Your task to perform on an android device: uninstall "YouTube Kids" Image 0: 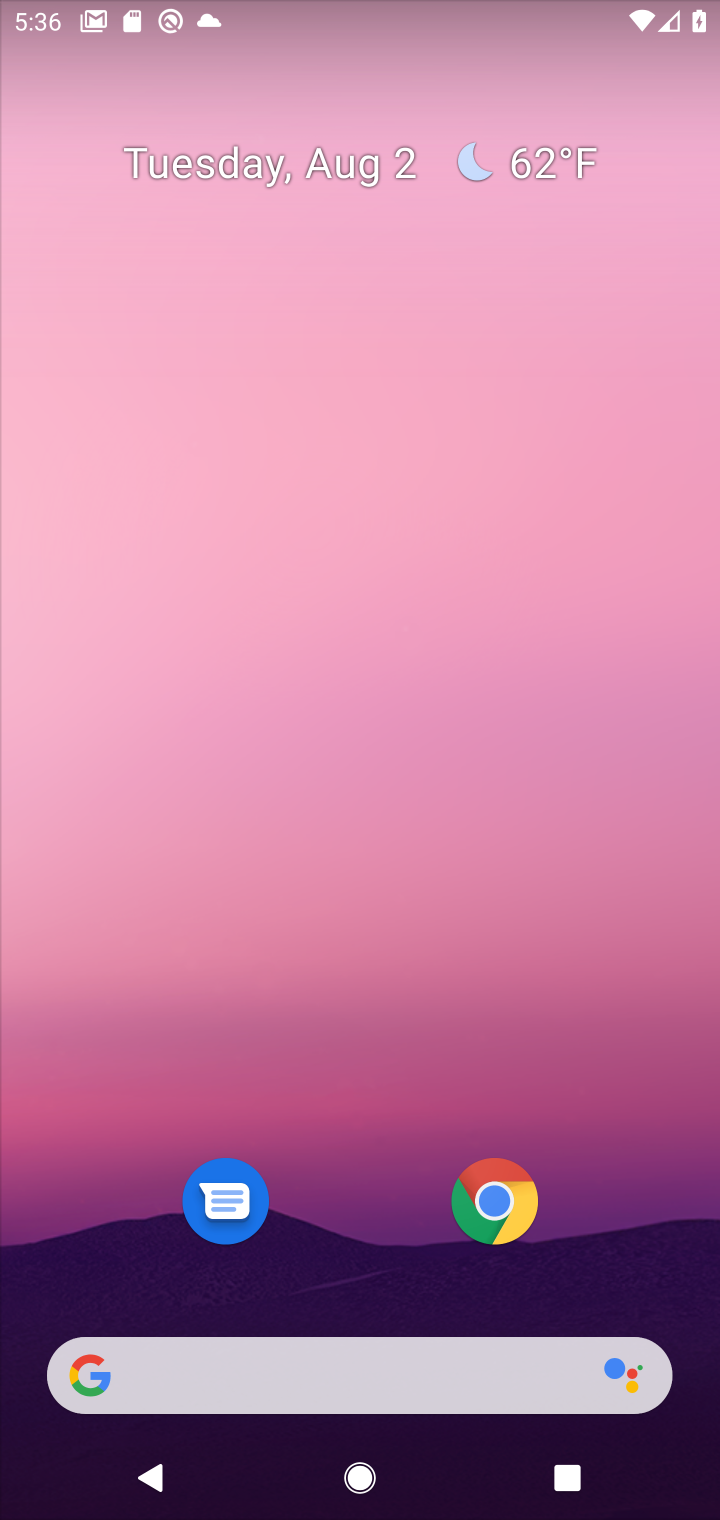
Step 0: drag from (356, 592) to (408, 206)
Your task to perform on an android device: uninstall "YouTube Kids" Image 1: 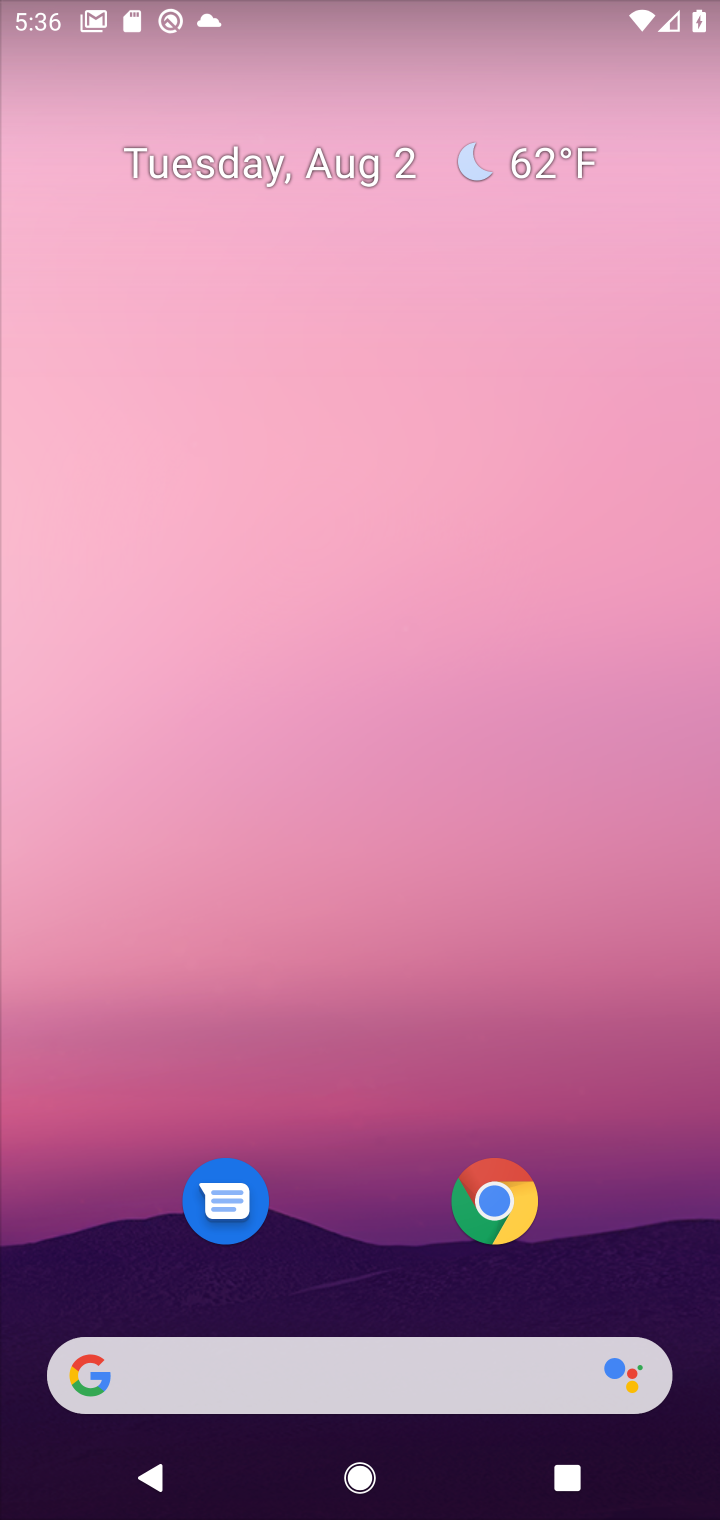
Step 1: drag from (355, 1021) to (373, 101)
Your task to perform on an android device: uninstall "YouTube Kids" Image 2: 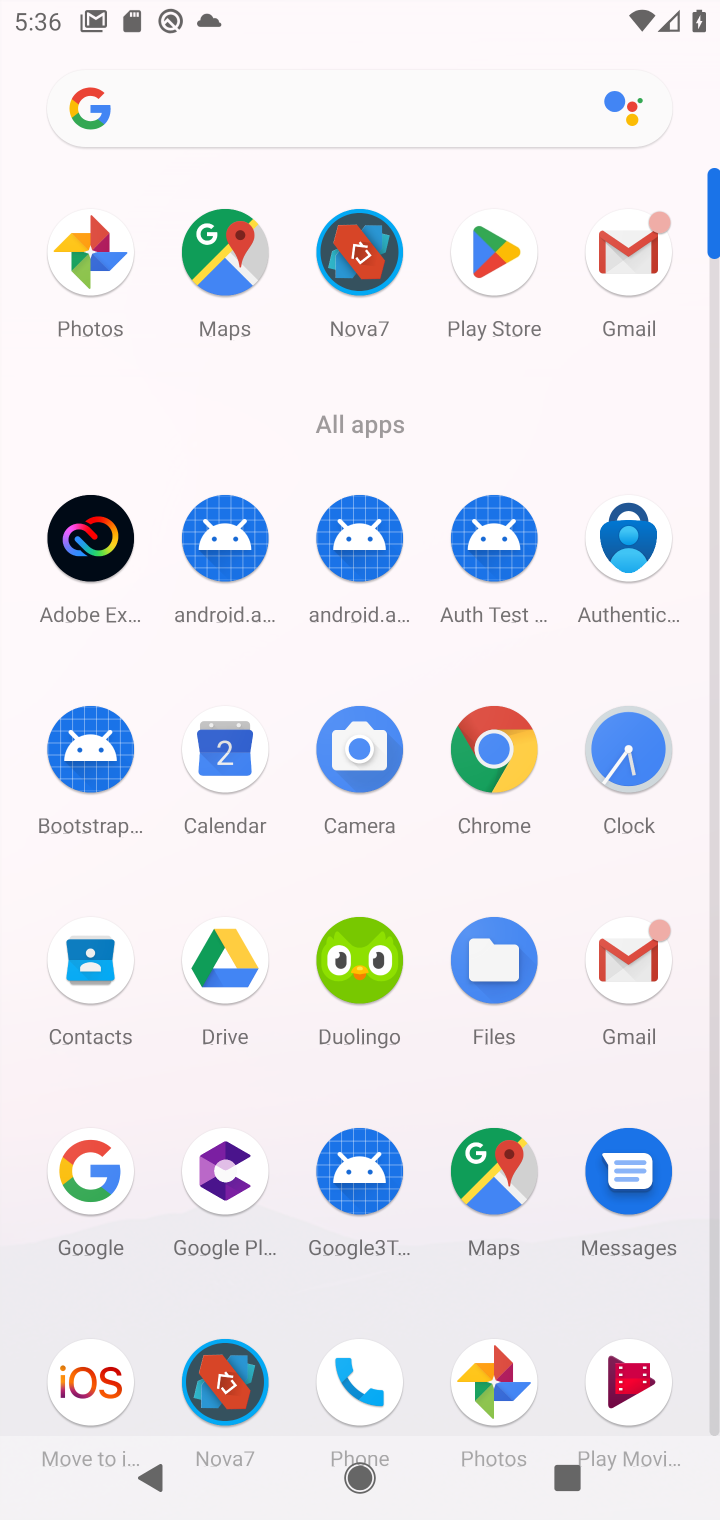
Step 2: click (469, 257)
Your task to perform on an android device: uninstall "YouTube Kids" Image 3: 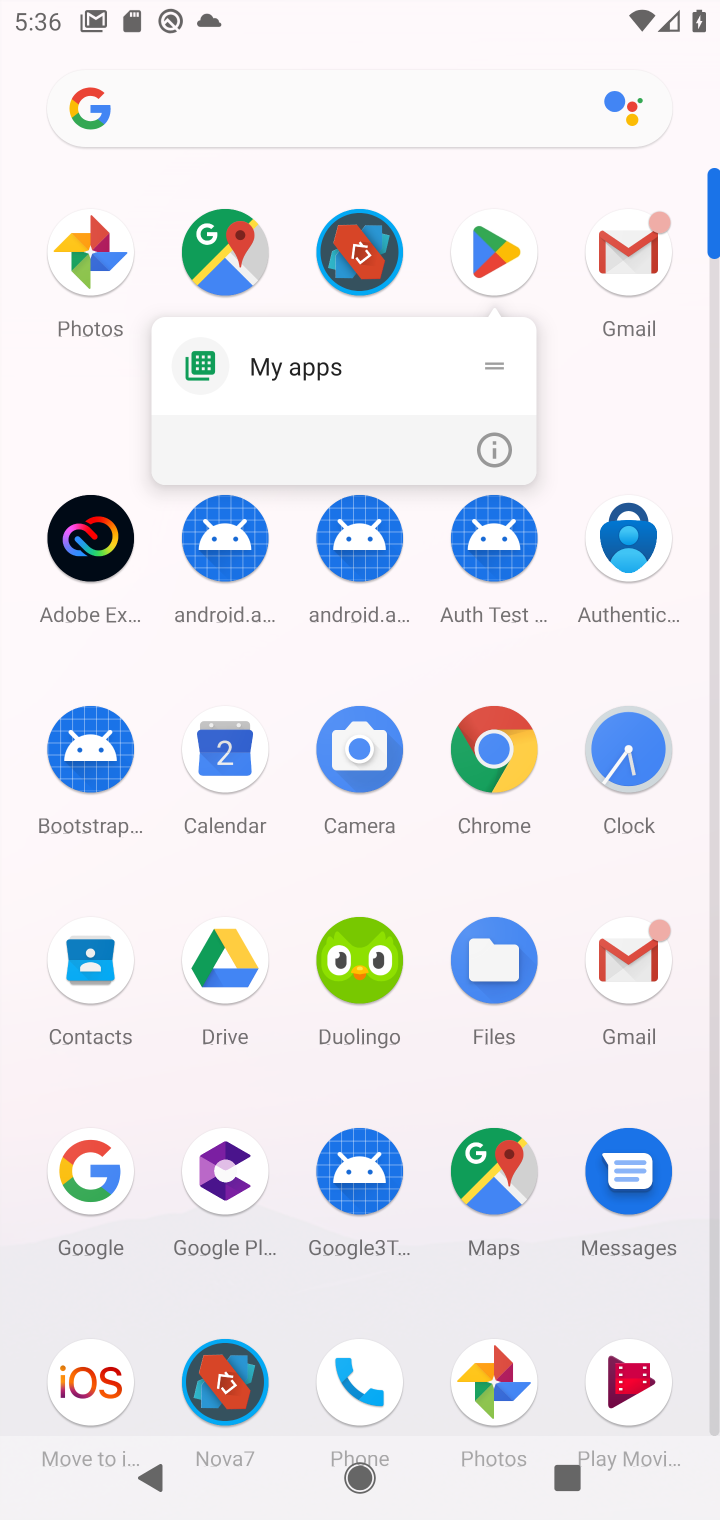
Step 3: click (489, 449)
Your task to perform on an android device: uninstall "YouTube Kids" Image 4: 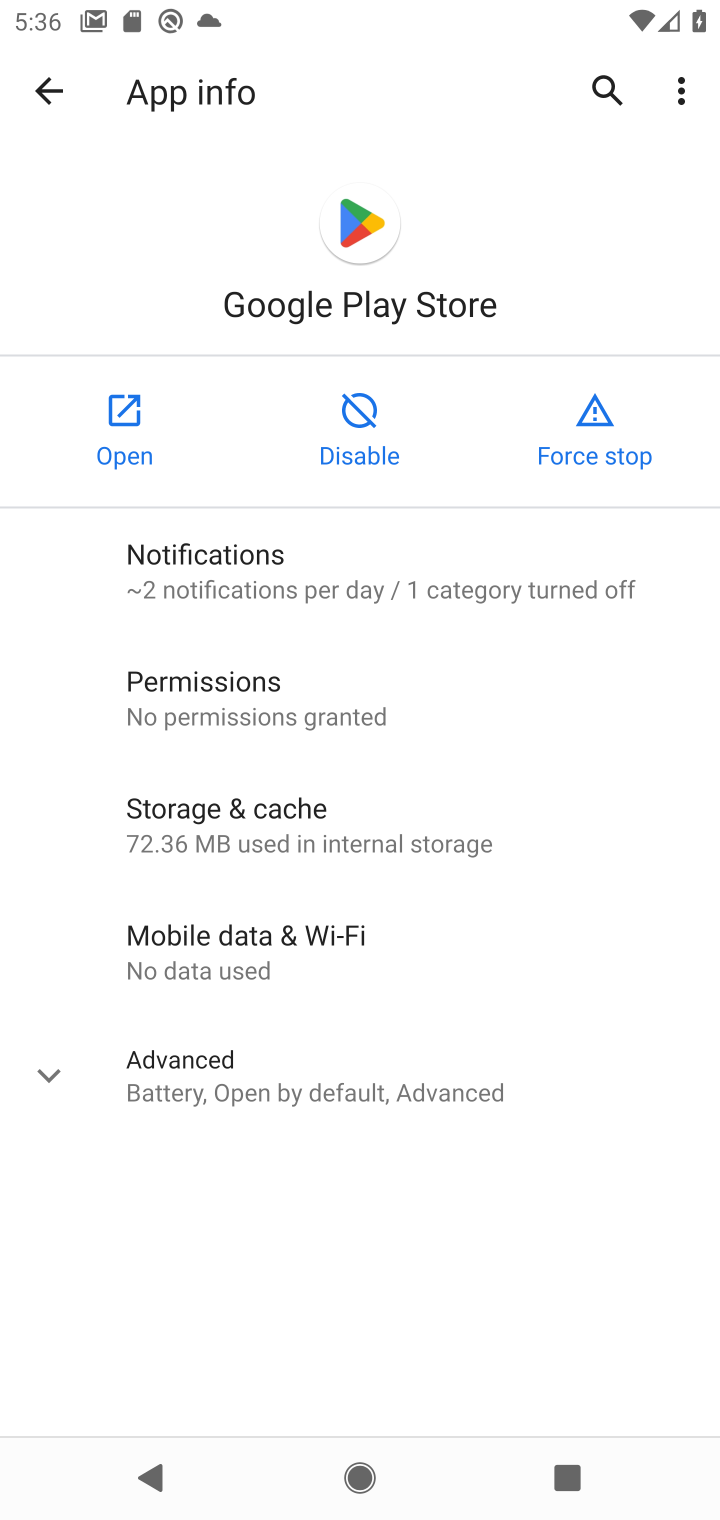
Step 4: click (114, 417)
Your task to perform on an android device: uninstall "YouTube Kids" Image 5: 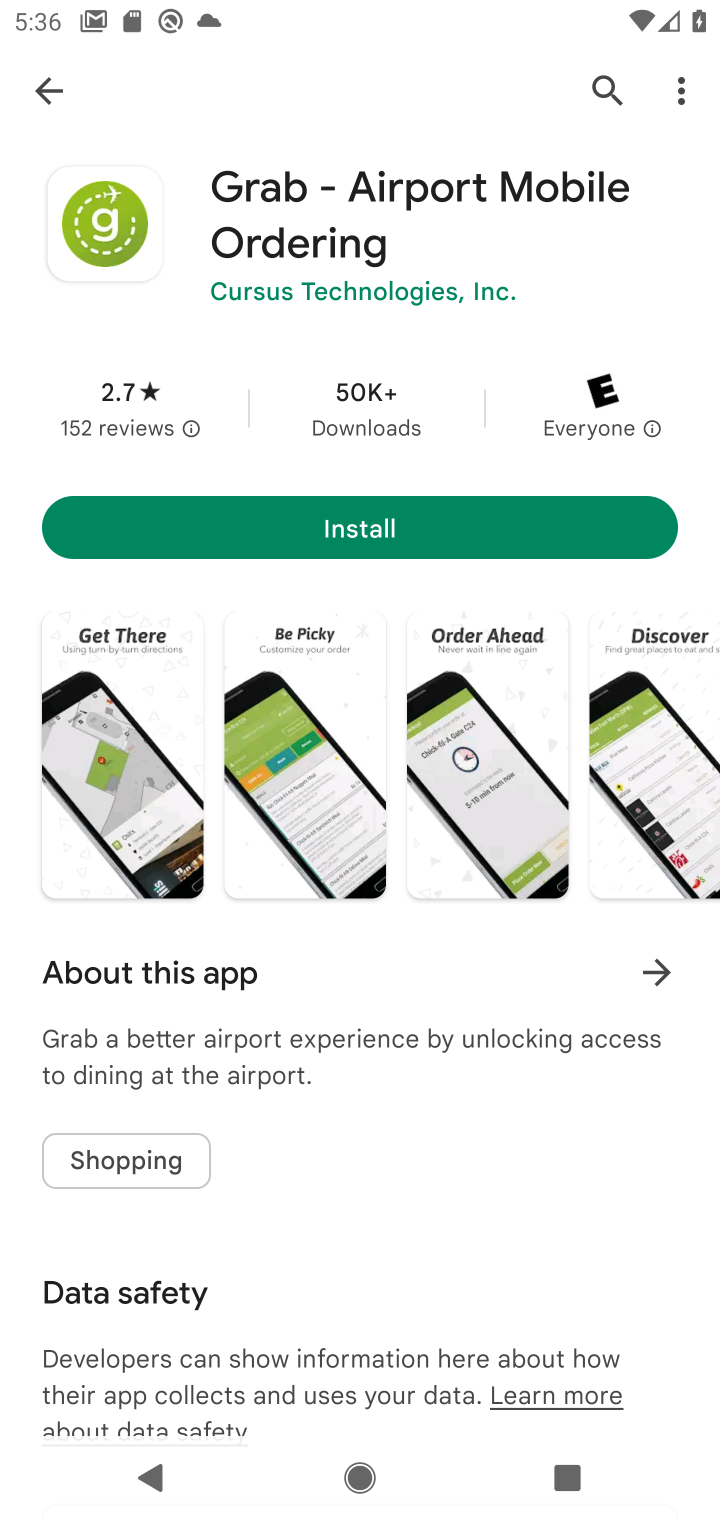
Step 5: click (608, 93)
Your task to perform on an android device: uninstall "YouTube Kids" Image 6: 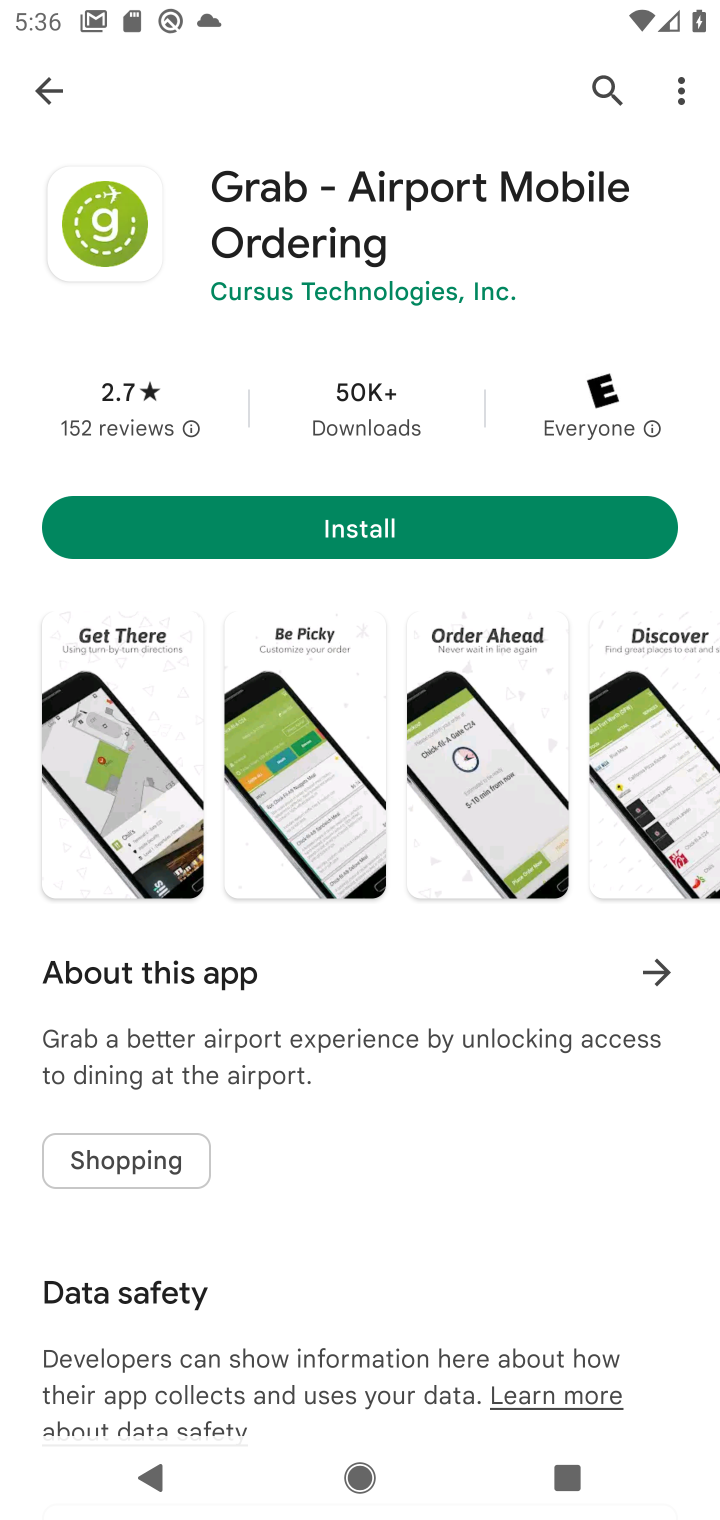
Step 6: click (618, 93)
Your task to perform on an android device: uninstall "YouTube Kids" Image 7: 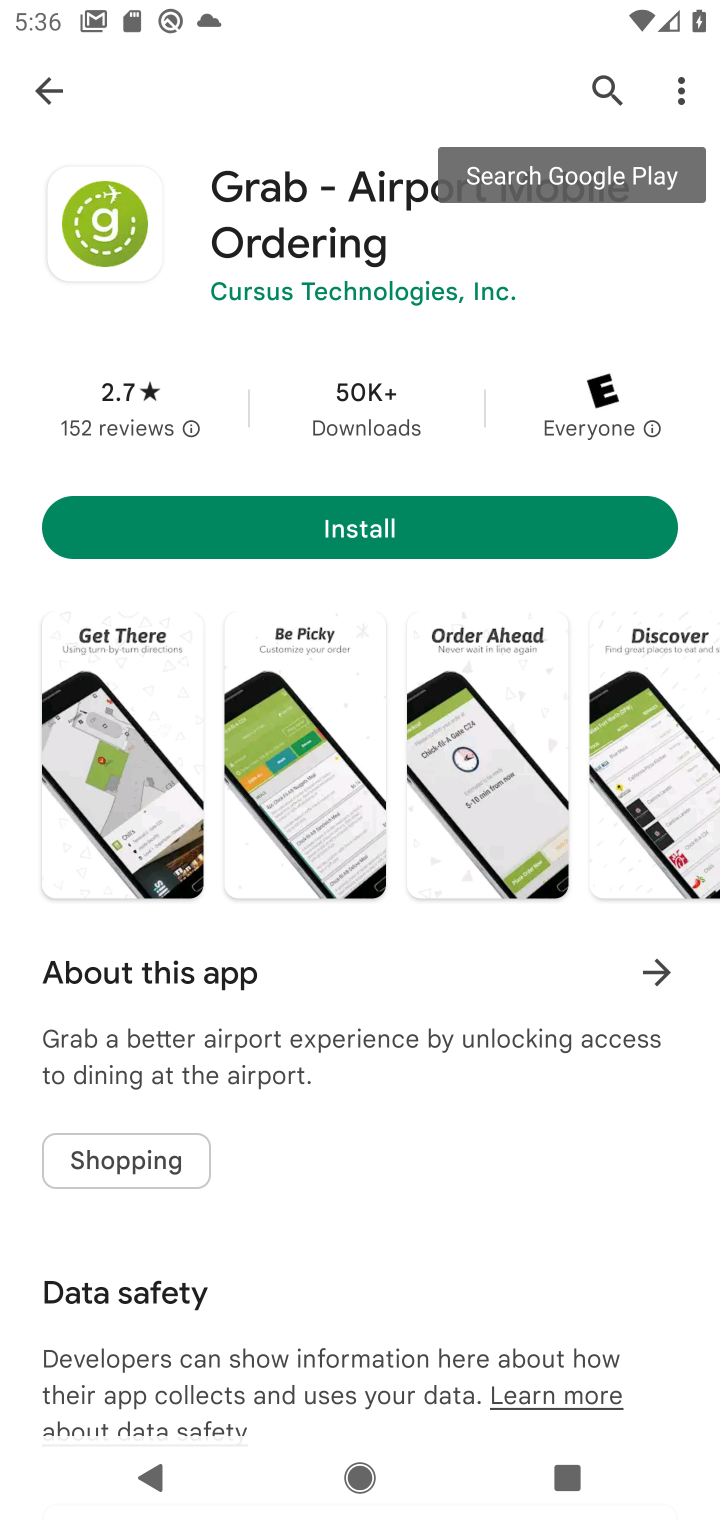
Step 7: click (610, 86)
Your task to perform on an android device: uninstall "YouTube Kids" Image 8: 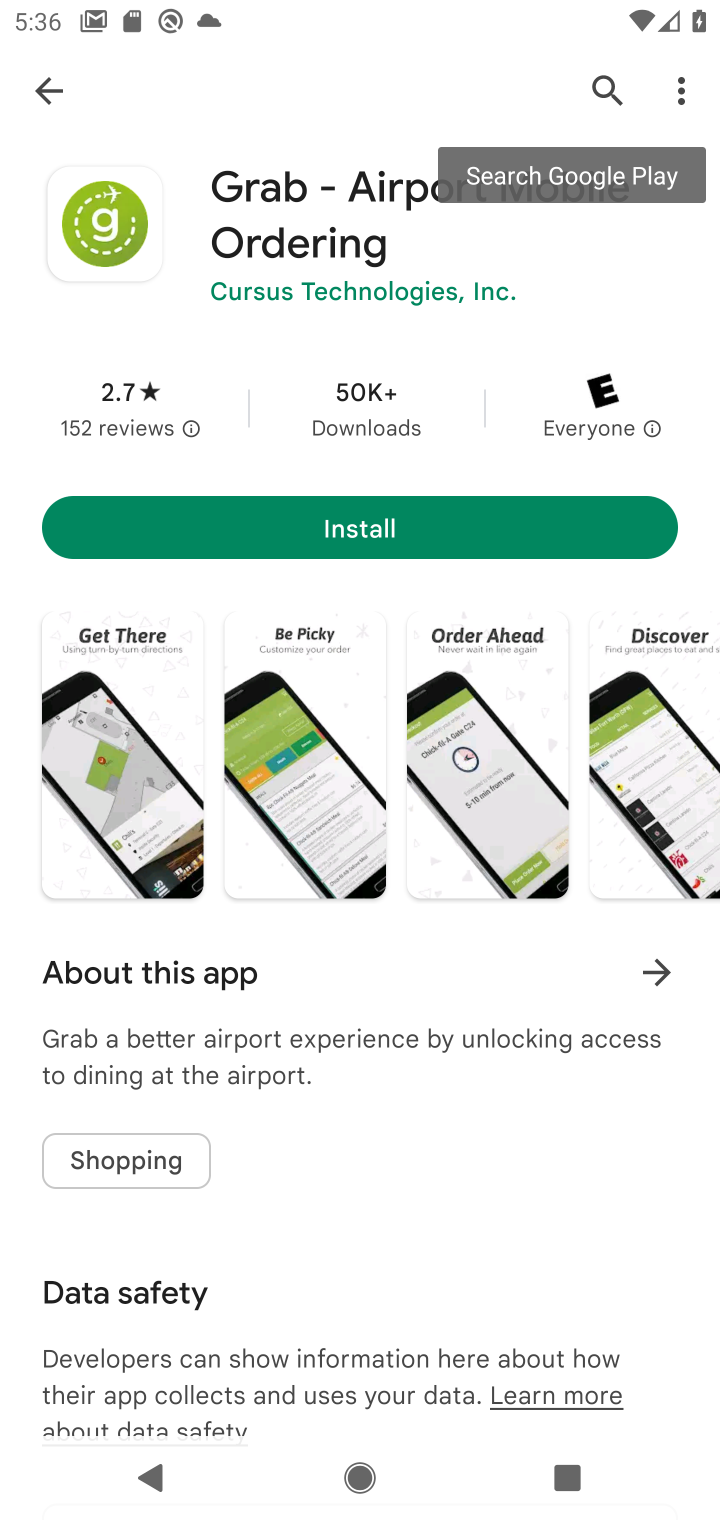
Step 8: click (606, 86)
Your task to perform on an android device: uninstall "YouTube Kids" Image 9: 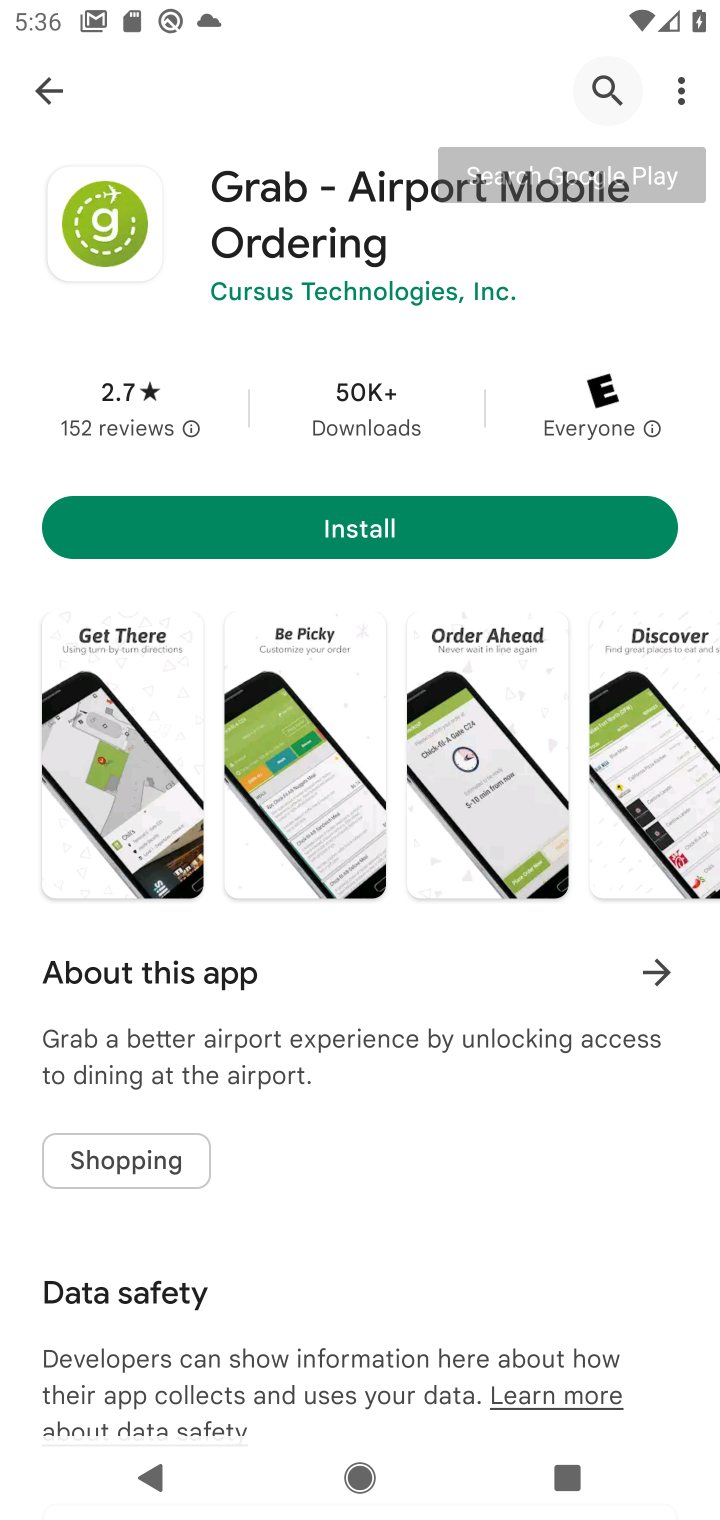
Step 9: click (606, 86)
Your task to perform on an android device: uninstall "YouTube Kids" Image 10: 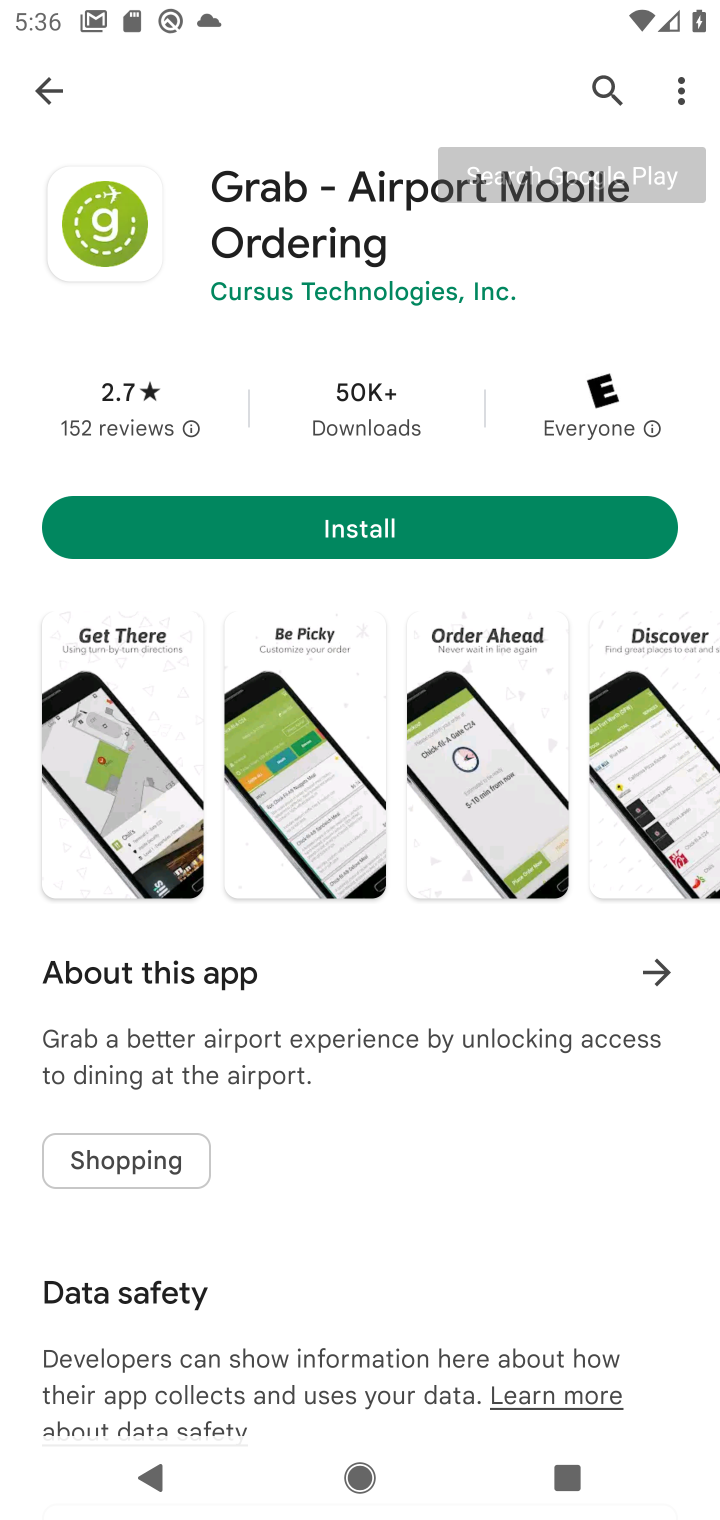
Step 10: click (606, 86)
Your task to perform on an android device: uninstall "YouTube Kids" Image 11: 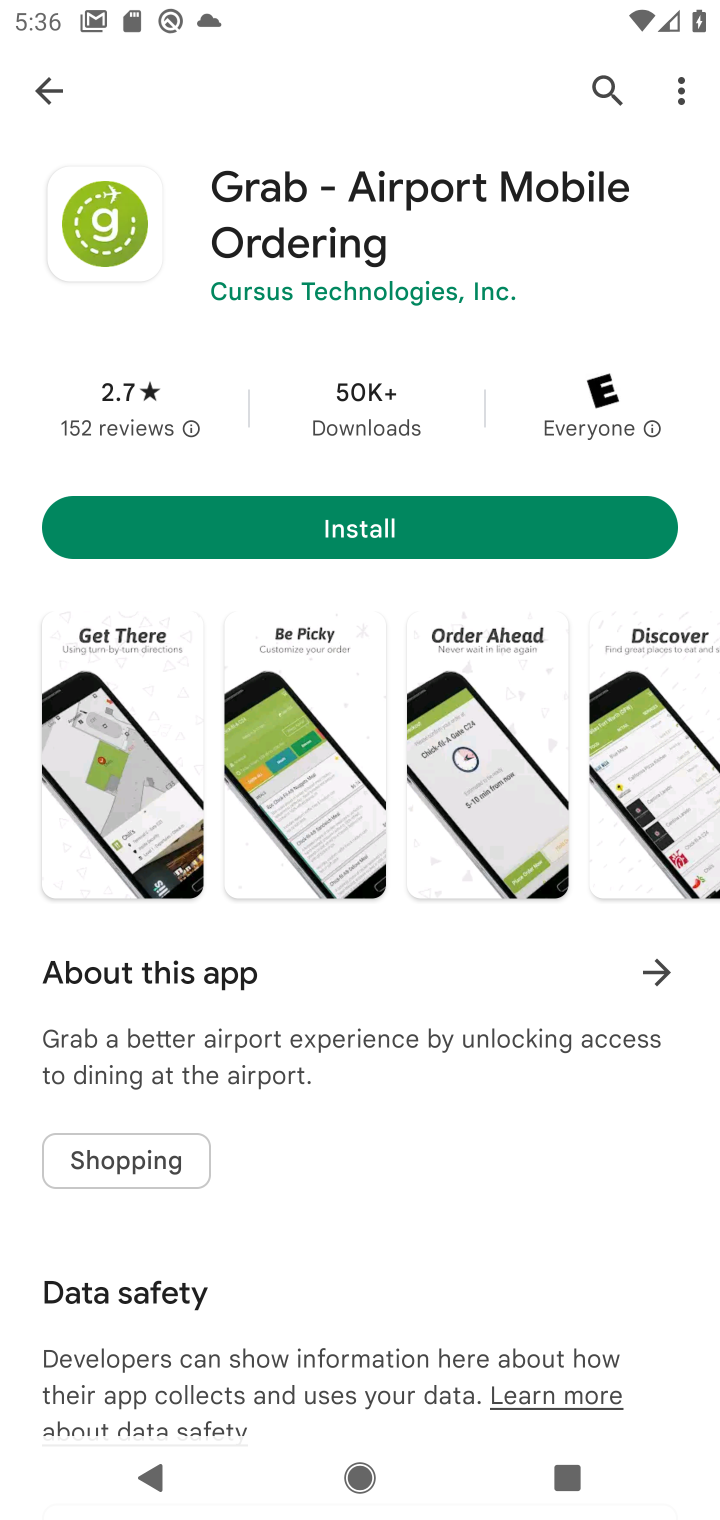
Step 11: press back button
Your task to perform on an android device: uninstall "YouTube Kids" Image 12: 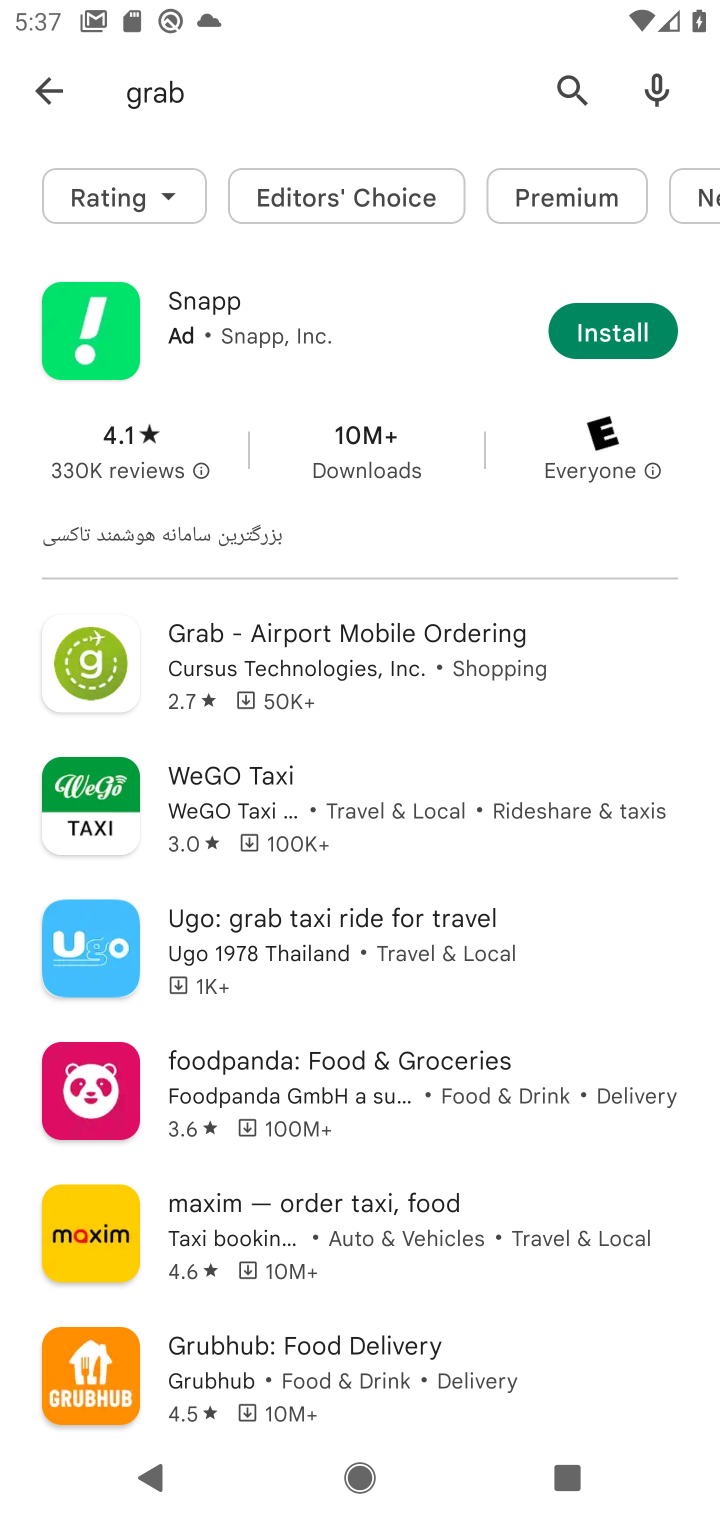
Step 12: click (560, 111)
Your task to perform on an android device: uninstall "YouTube Kids" Image 13: 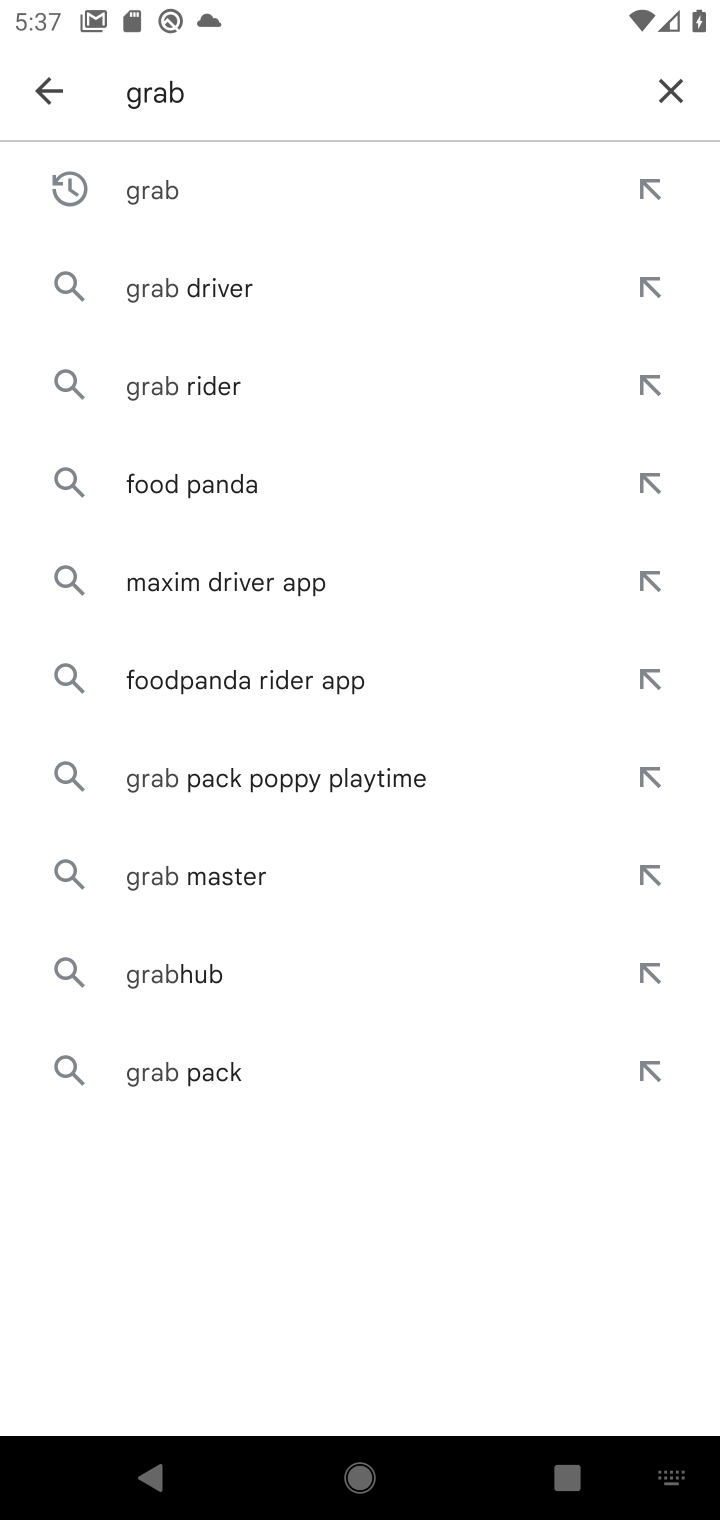
Step 13: click (661, 93)
Your task to perform on an android device: uninstall "YouTube Kids" Image 14: 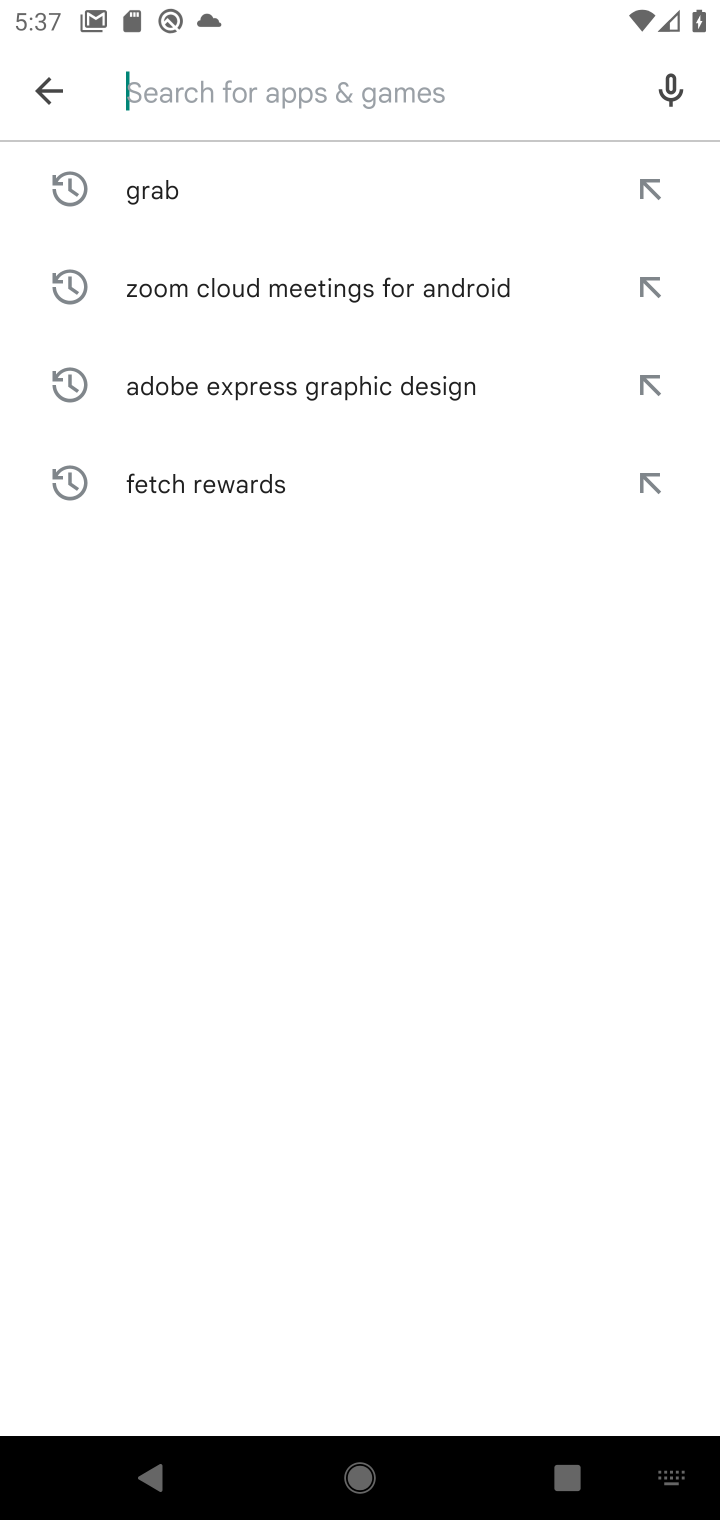
Step 14: type "YouTube Kids"
Your task to perform on an android device: uninstall "YouTube Kids" Image 15: 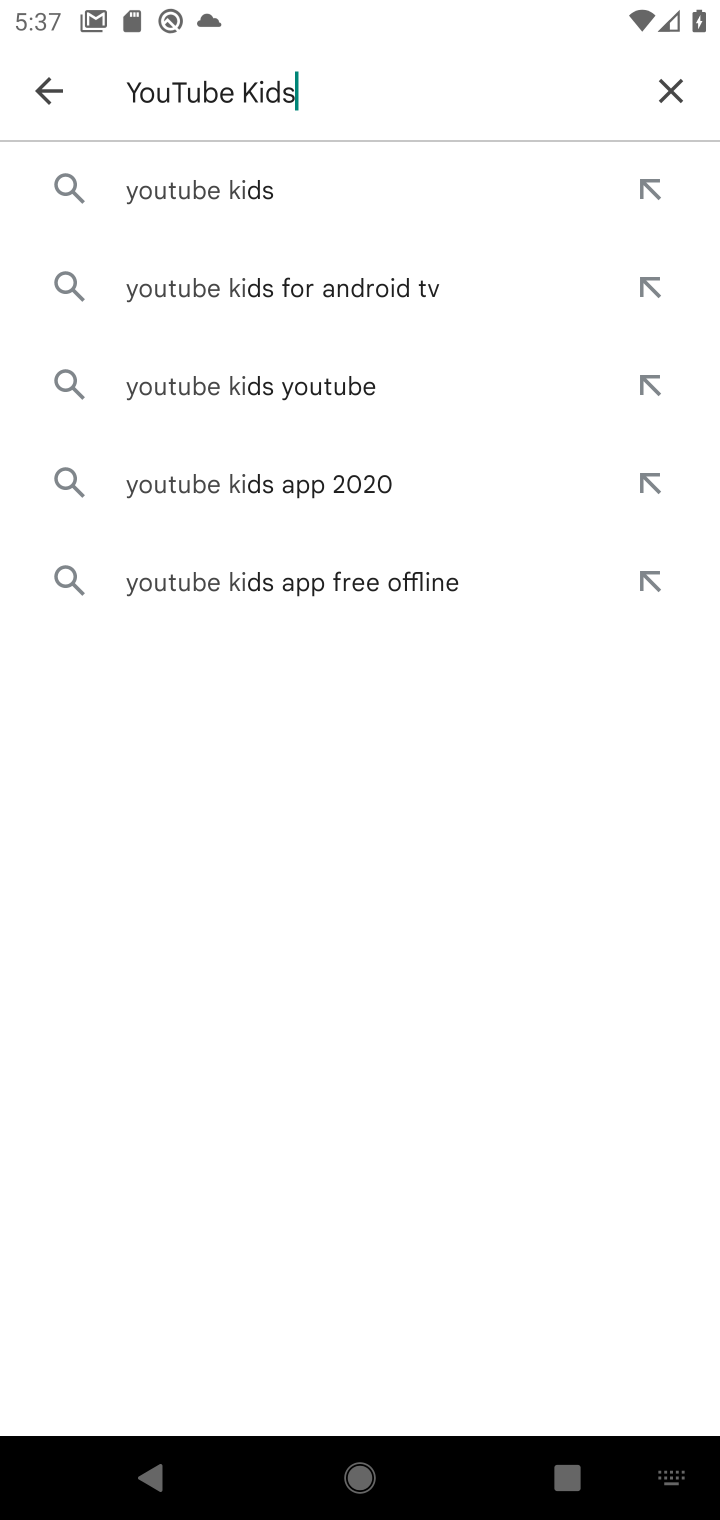
Step 15: type ""
Your task to perform on an android device: uninstall "YouTube Kids" Image 16: 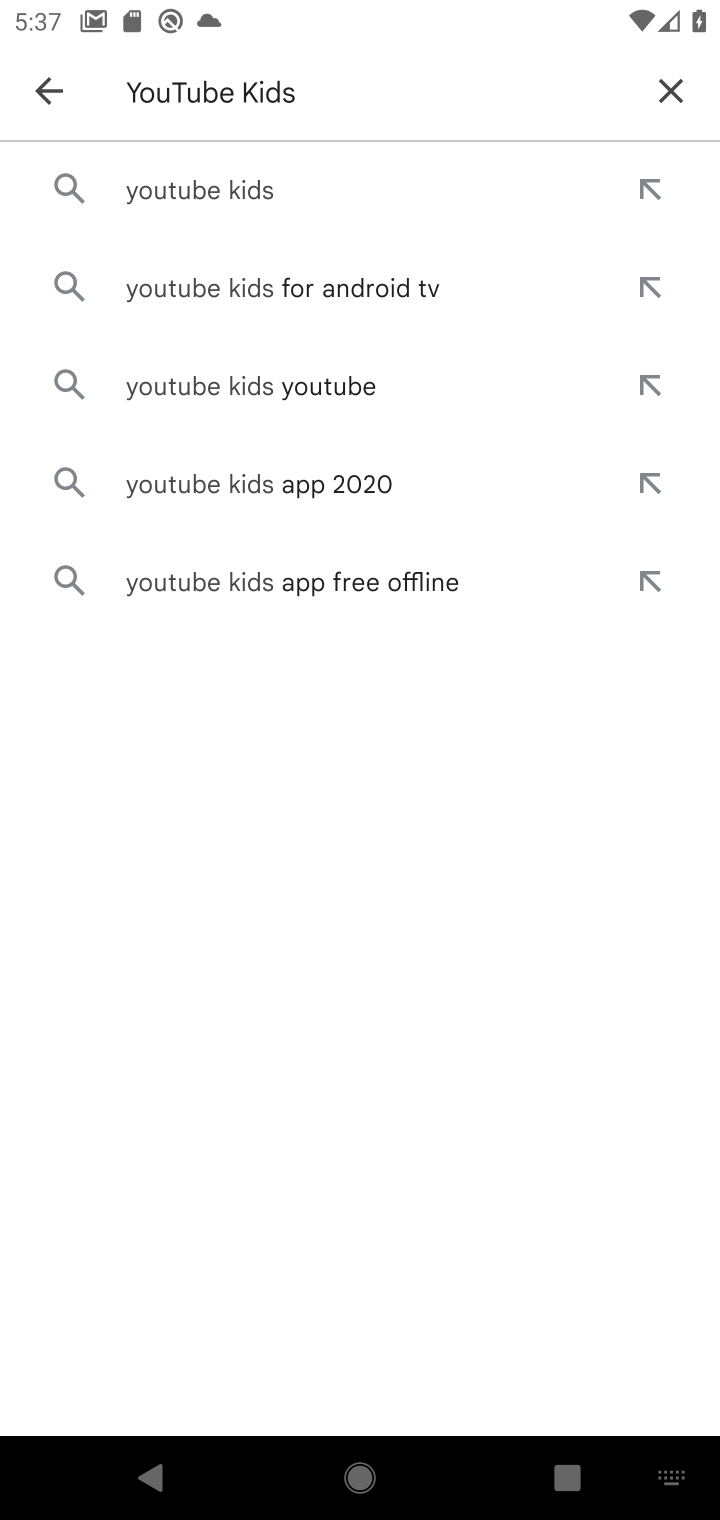
Step 16: click (185, 180)
Your task to perform on an android device: uninstall "YouTube Kids" Image 17: 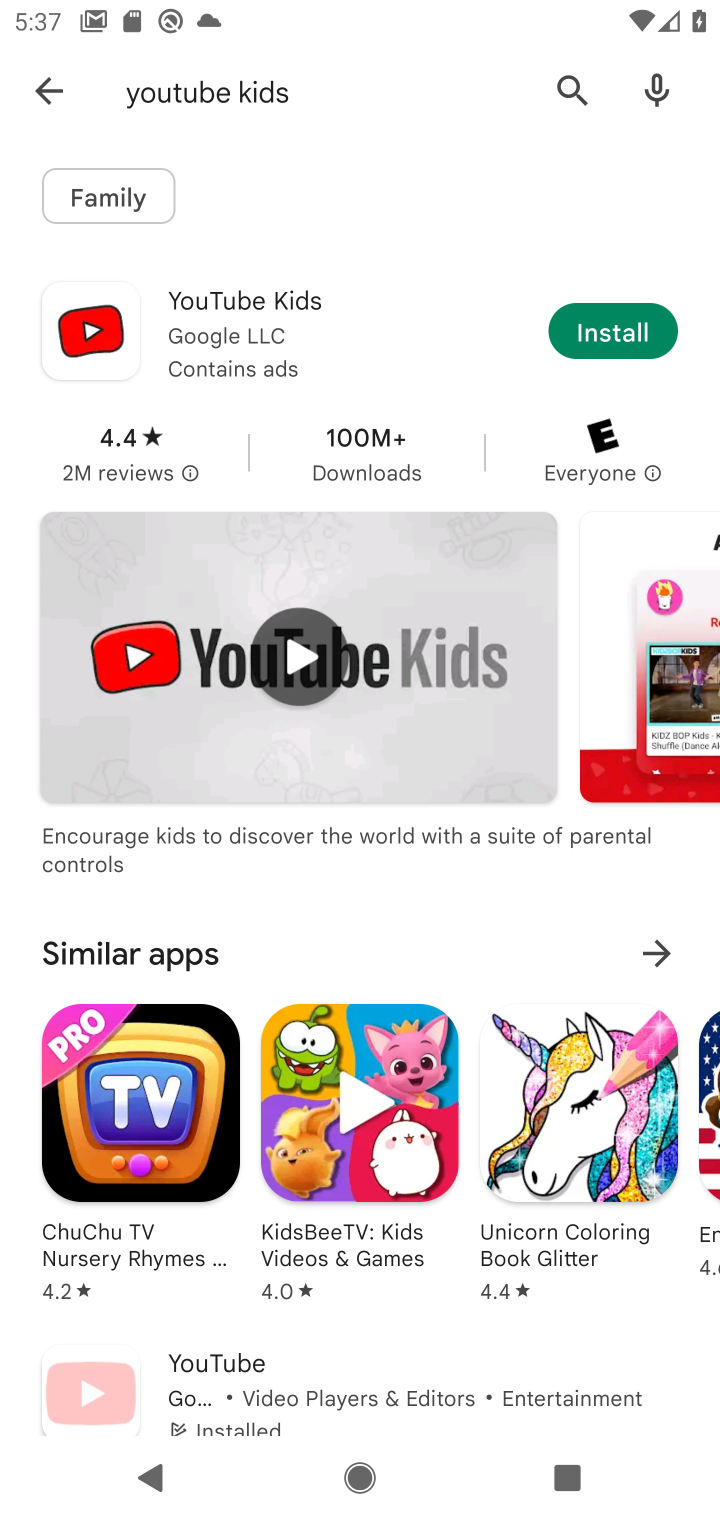
Step 17: drag from (377, 351) to (643, 1082)
Your task to perform on an android device: uninstall "YouTube Kids" Image 18: 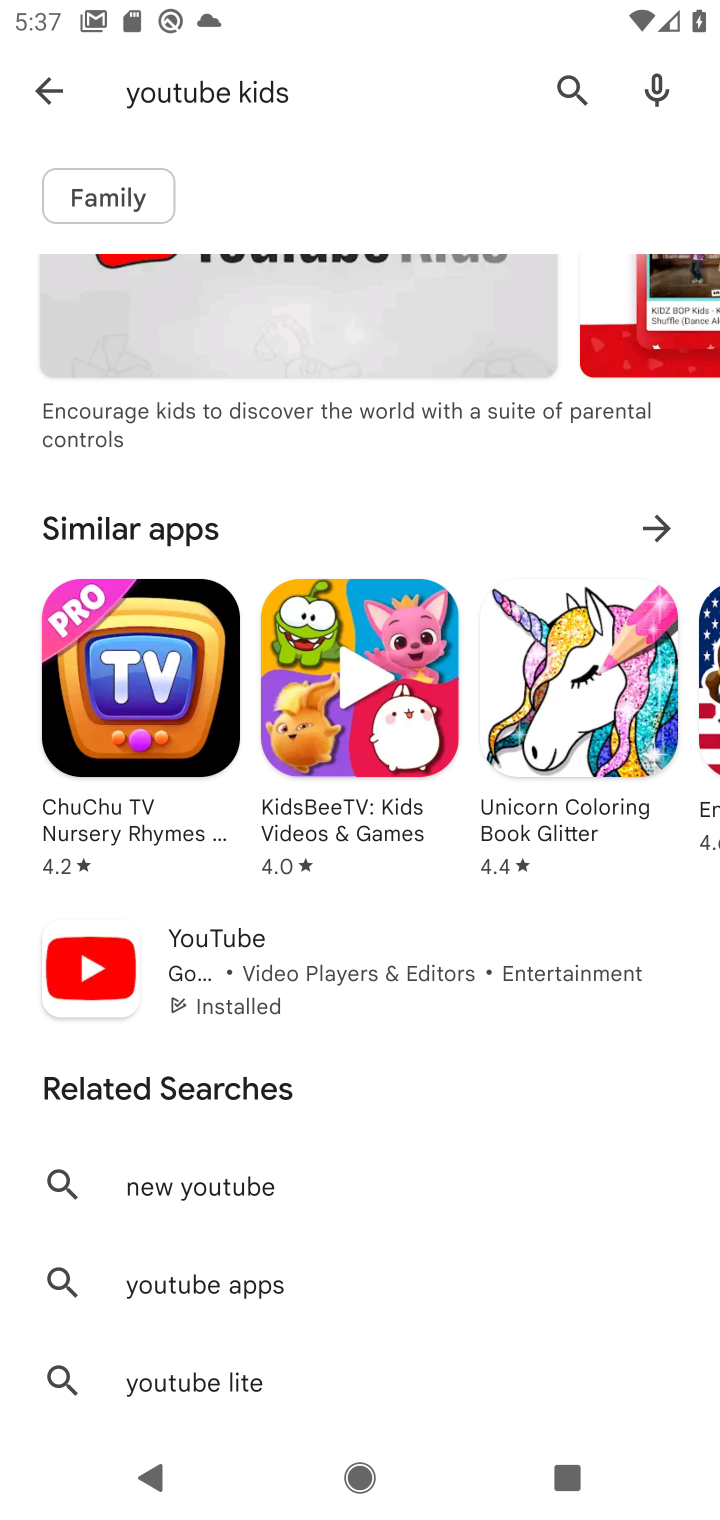
Step 18: drag from (319, 853) to (601, 1495)
Your task to perform on an android device: uninstall "YouTube Kids" Image 19: 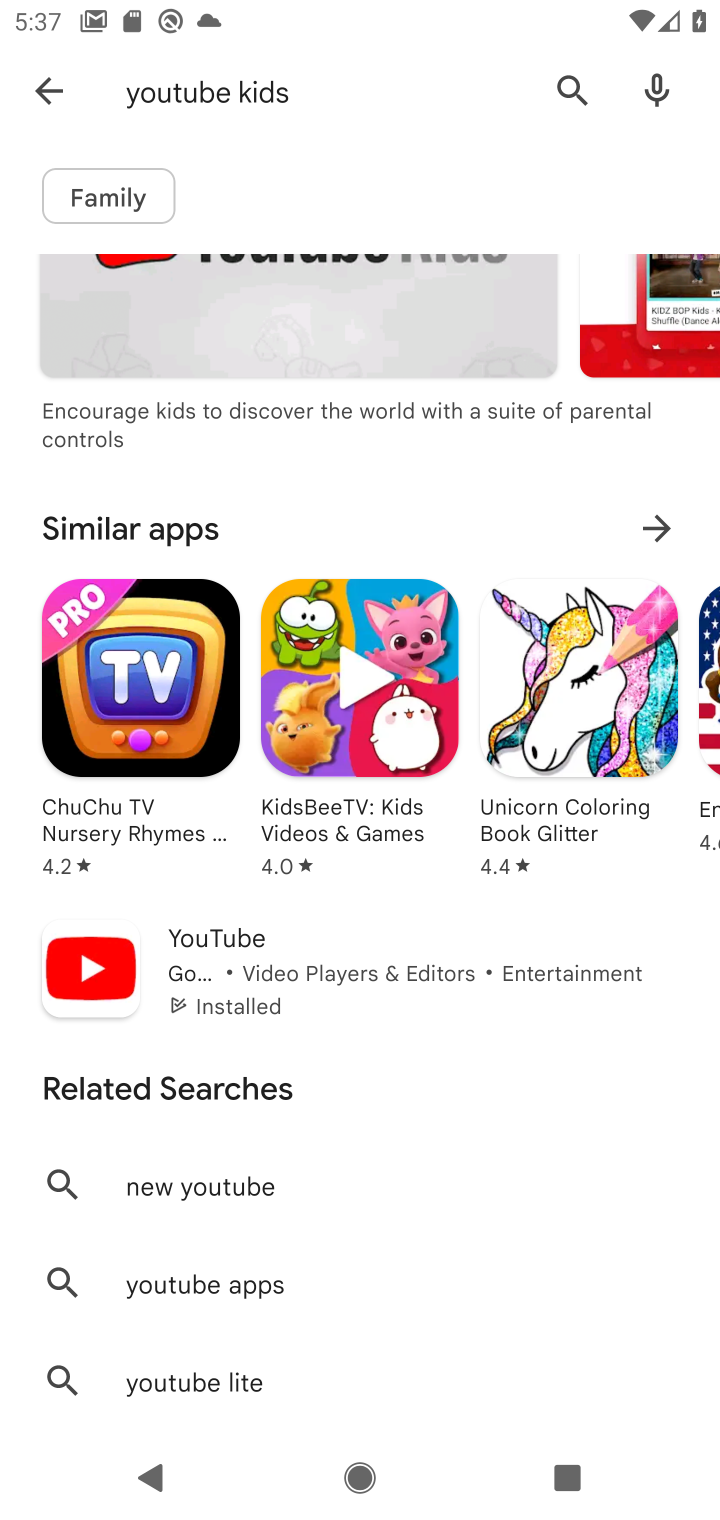
Step 19: drag from (316, 457) to (459, 1425)
Your task to perform on an android device: uninstall "YouTube Kids" Image 20: 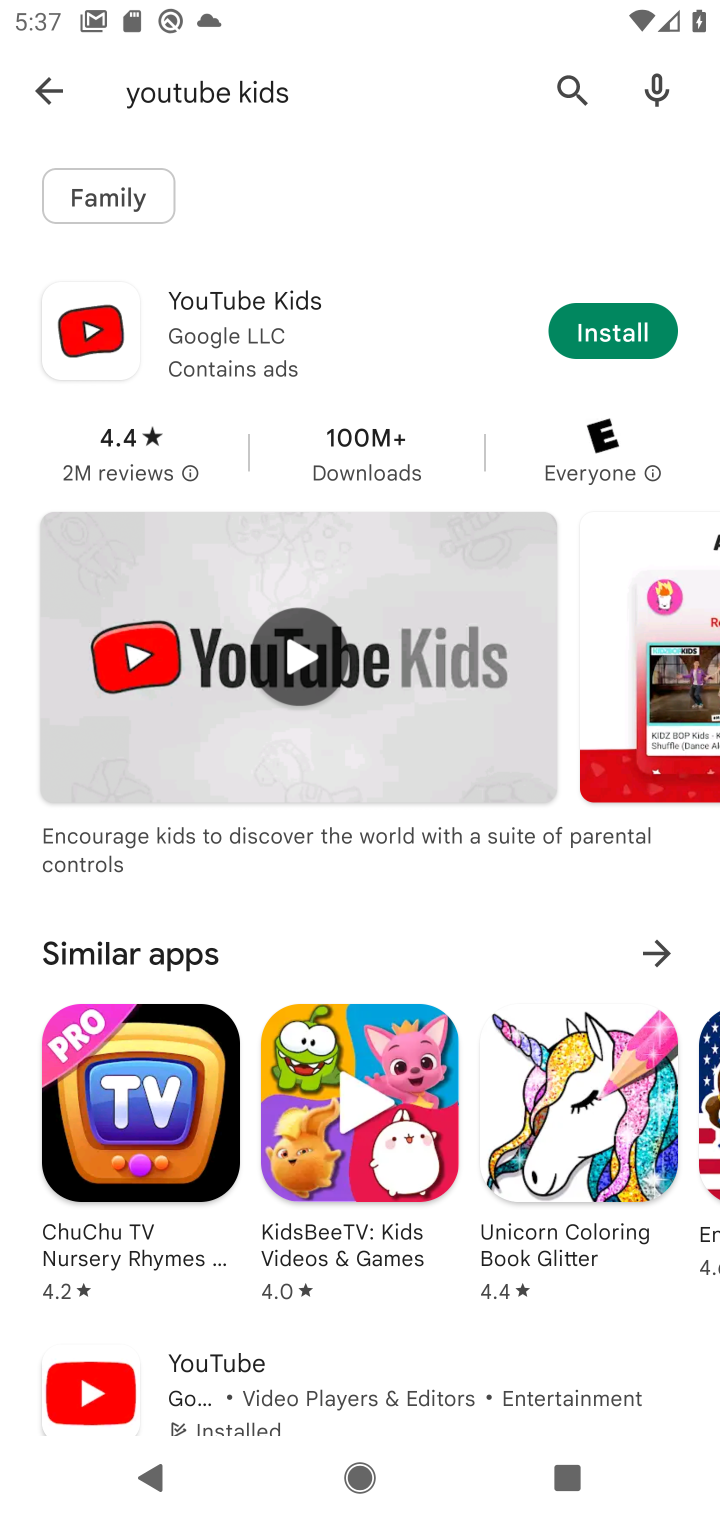
Step 20: drag from (385, 444) to (510, 1243)
Your task to perform on an android device: uninstall "YouTube Kids" Image 21: 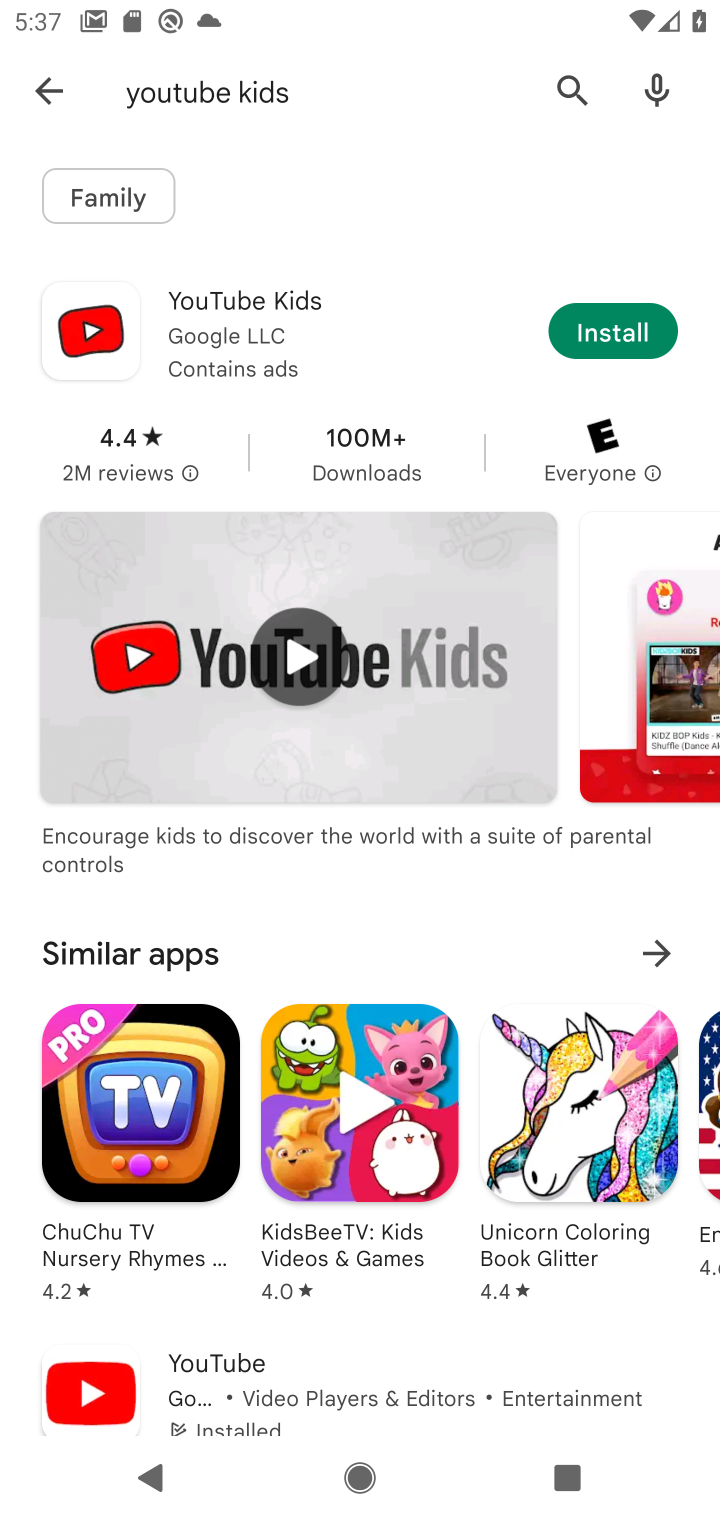
Step 21: click (261, 300)
Your task to perform on an android device: uninstall "YouTube Kids" Image 22: 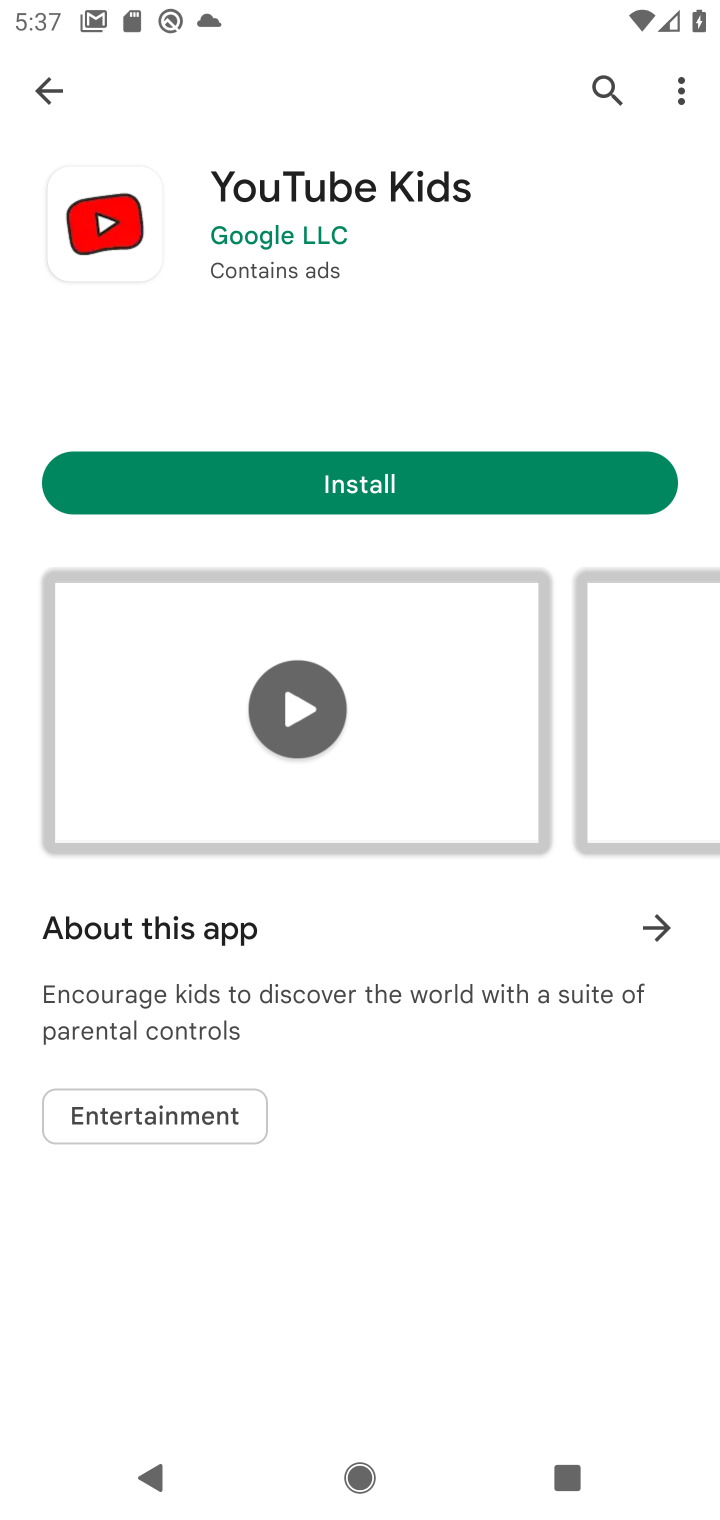
Step 22: task complete